Your task to perform on an android device: Go to privacy settings Image 0: 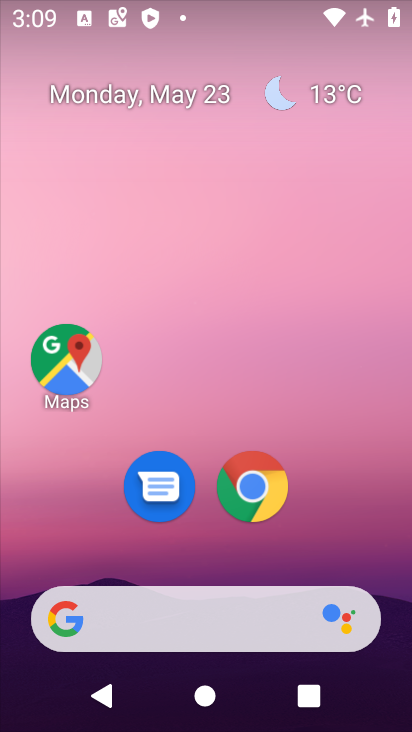
Step 0: drag from (399, 611) to (360, 106)
Your task to perform on an android device: Go to privacy settings Image 1: 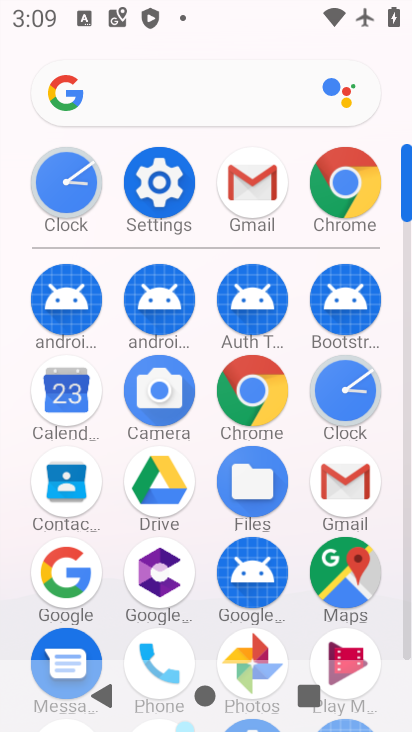
Step 1: click (407, 638)
Your task to perform on an android device: Go to privacy settings Image 2: 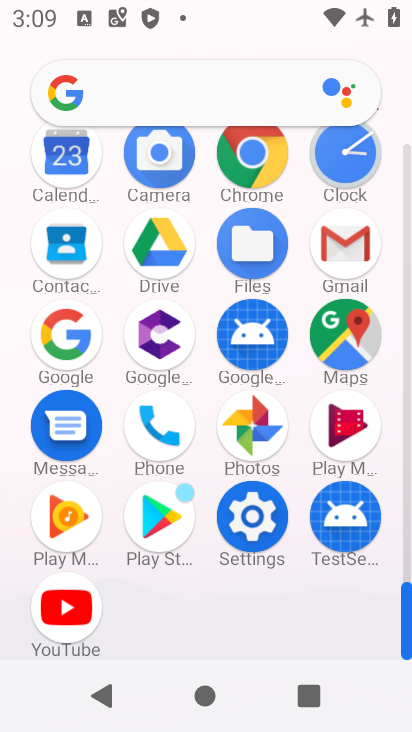
Step 2: click (251, 520)
Your task to perform on an android device: Go to privacy settings Image 3: 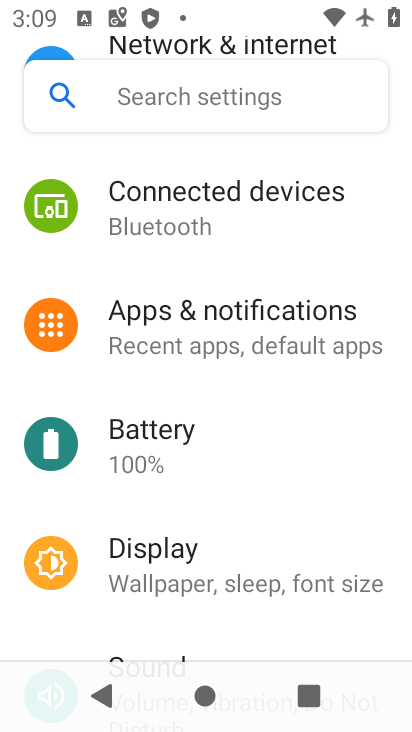
Step 3: drag from (352, 603) to (342, 109)
Your task to perform on an android device: Go to privacy settings Image 4: 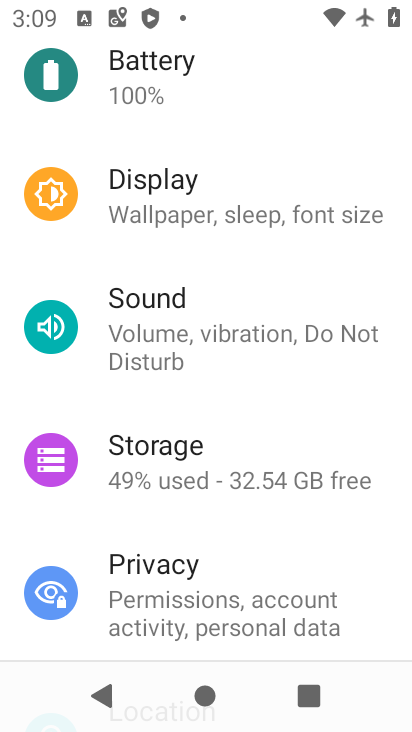
Step 4: click (160, 579)
Your task to perform on an android device: Go to privacy settings Image 5: 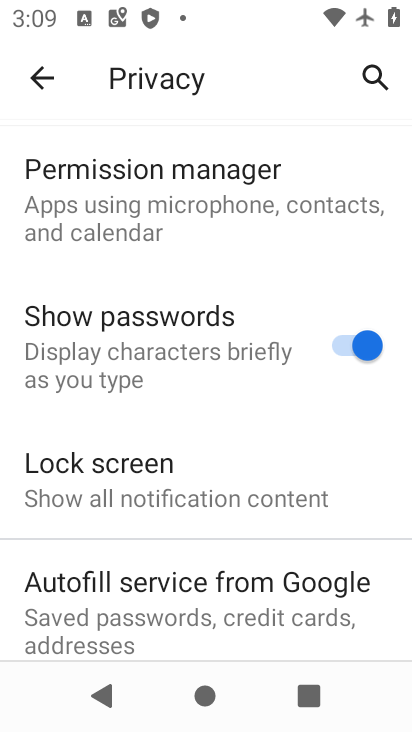
Step 5: drag from (186, 395) to (182, 330)
Your task to perform on an android device: Go to privacy settings Image 6: 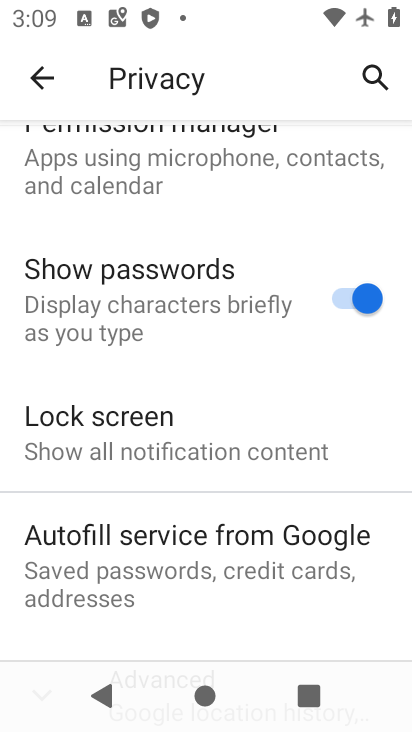
Step 6: drag from (184, 524) to (198, 361)
Your task to perform on an android device: Go to privacy settings Image 7: 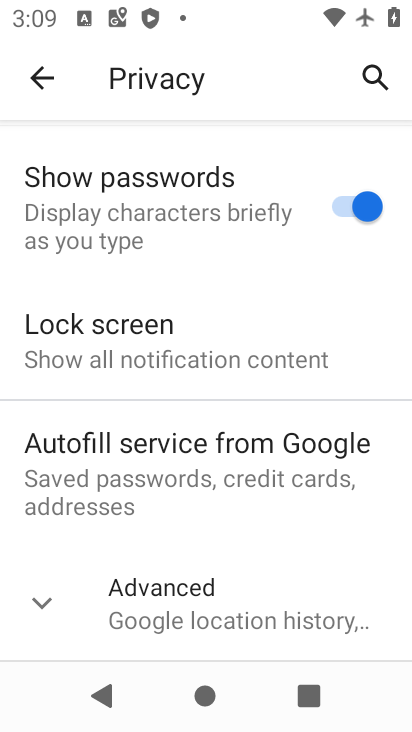
Step 7: drag from (215, 603) to (235, 232)
Your task to perform on an android device: Go to privacy settings Image 8: 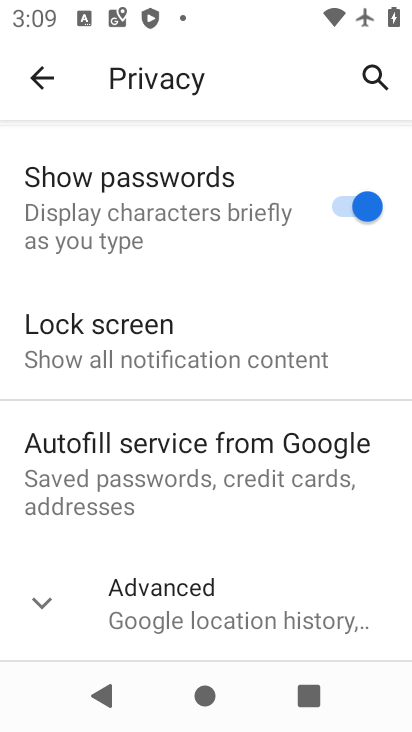
Step 8: click (48, 611)
Your task to perform on an android device: Go to privacy settings Image 9: 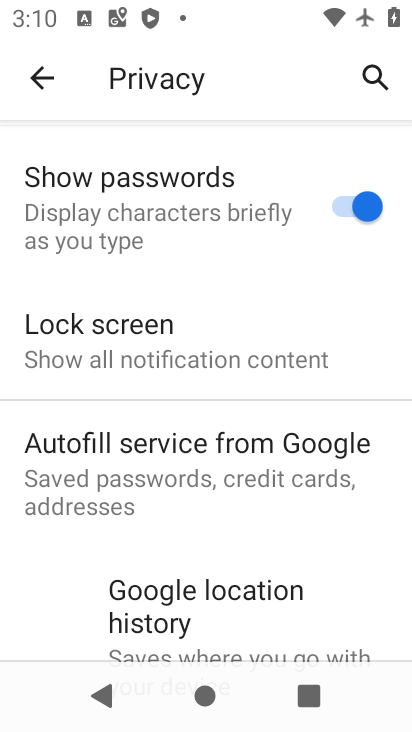
Step 9: task complete